Your task to perform on an android device: turn off improve location accuracy Image 0: 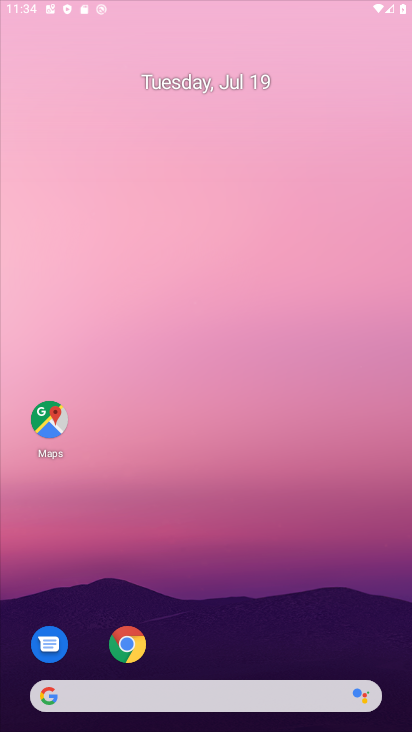
Step 0: press home button
Your task to perform on an android device: turn off improve location accuracy Image 1: 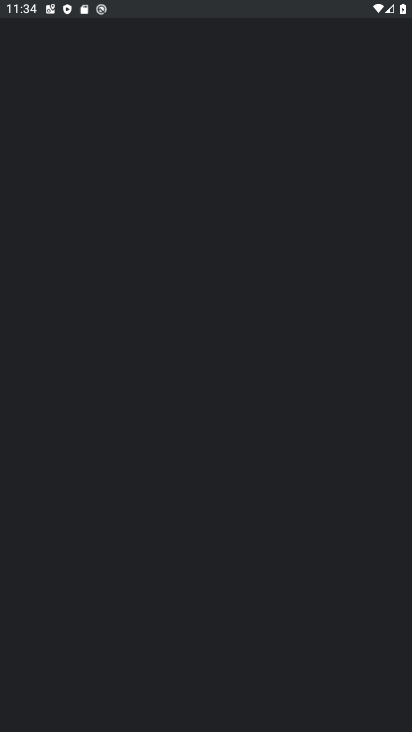
Step 1: drag from (347, 520) to (297, 37)
Your task to perform on an android device: turn off improve location accuracy Image 2: 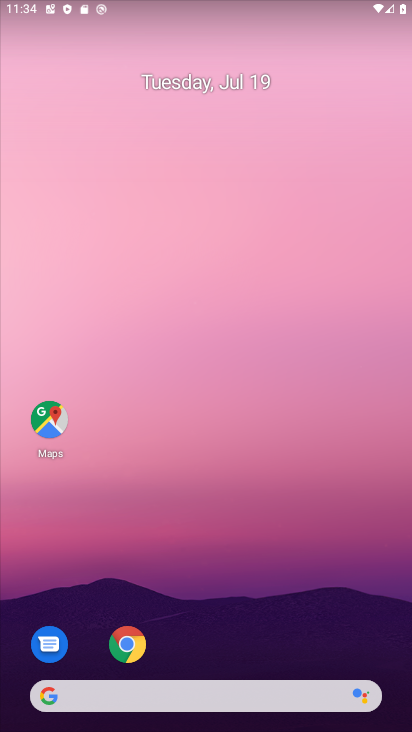
Step 2: drag from (249, 655) to (216, 237)
Your task to perform on an android device: turn off improve location accuracy Image 3: 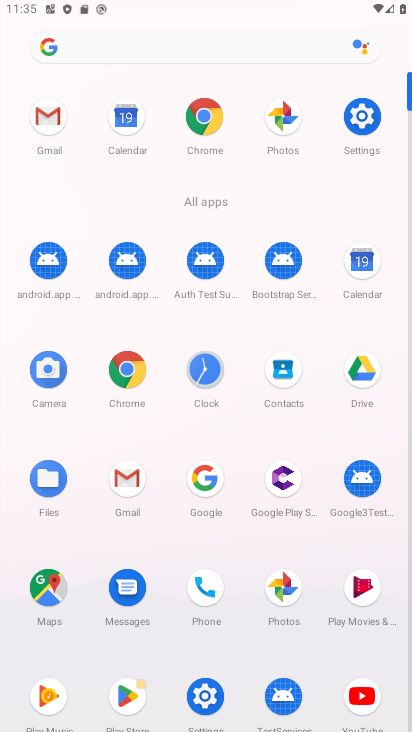
Step 3: click (191, 689)
Your task to perform on an android device: turn off improve location accuracy Image 4: 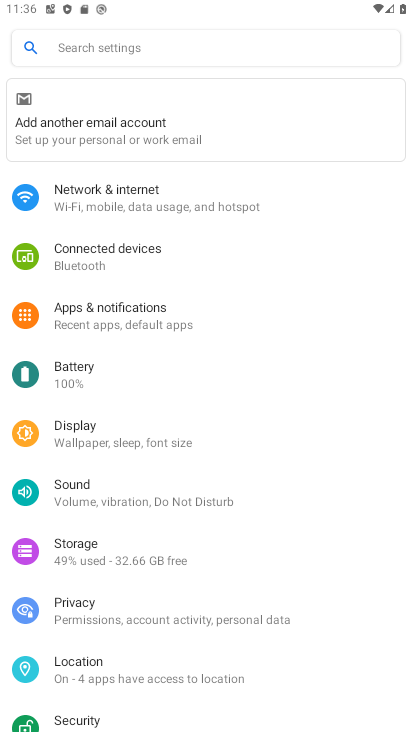
Step 4: click (75, 675)
Your task to perform on an android device: turn off improve location accuracy Image 5: 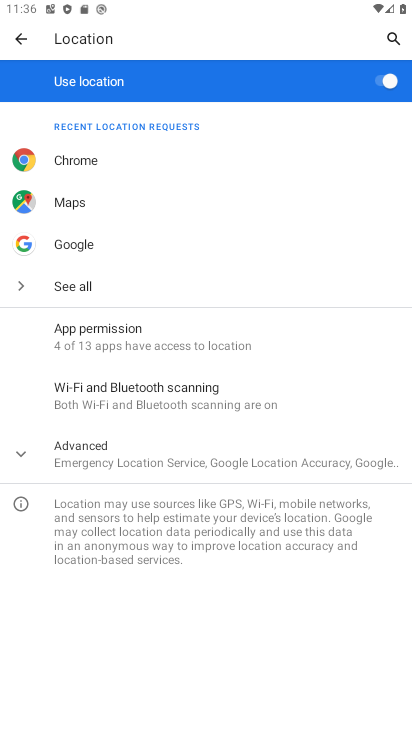
Step 5: click (111, 461)
Your task to perform on an android device: turn off improve location accuracy Image 6: 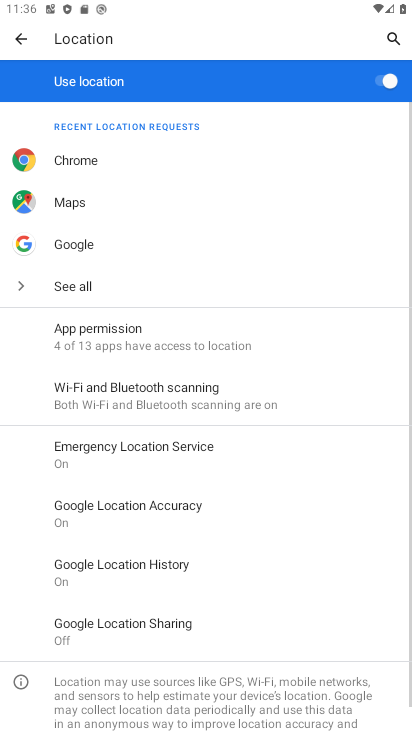
Step 6: click (121, 526)
Your task to perform on an android device: turn off improve location accuracy Image 7: 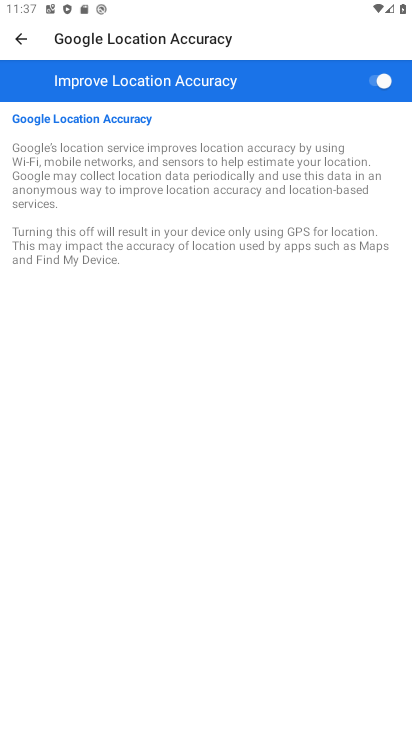
Step 7: click (317, 71)
Your task to perform on an android device: turn off improve location accuracy Image 8: 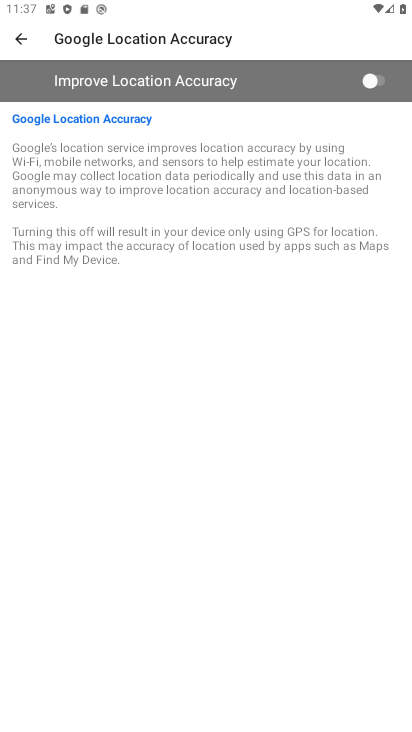
Step 8: task complete